Your task to perform on an android device: change the clock style Image 0: 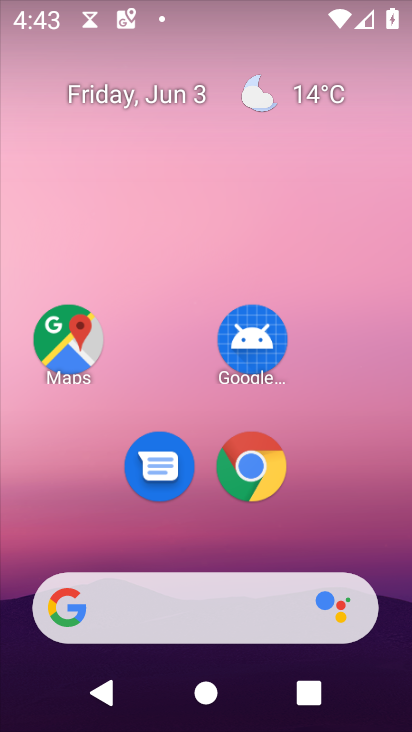
Step 0: drag from (331, 516) to (335, 161)
Your task to perform on an android device: change the clock style Image 1: 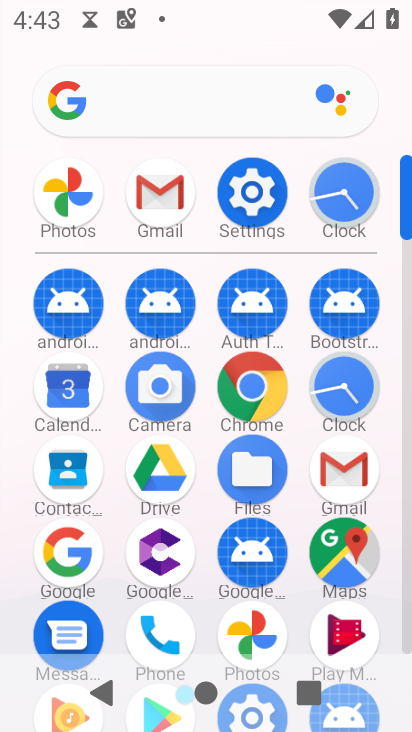
Step 1: click (345, 207)
Your task to perform on an android device: change the clock style Image 2: 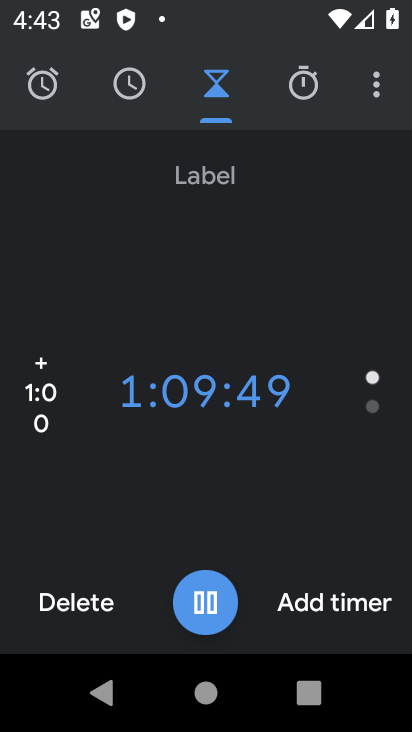
Step 2: click (375, 86)
Your task to perform on an android device: change the clock style Image 3: 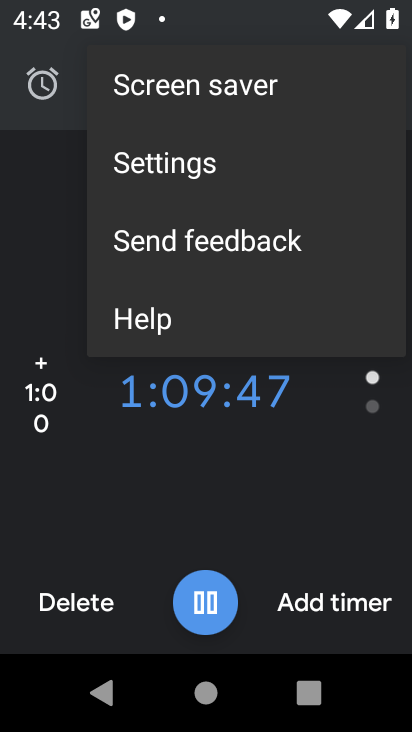
Step 3: click (264, 156)
Your task to perform on an android device: change the clock style Image 4: 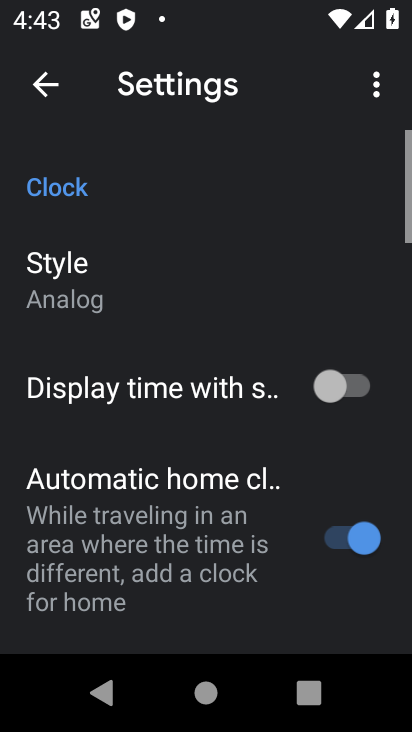
Step 4: click (98, 280)
Your task to perform on an android device: change the clock style Image 5: 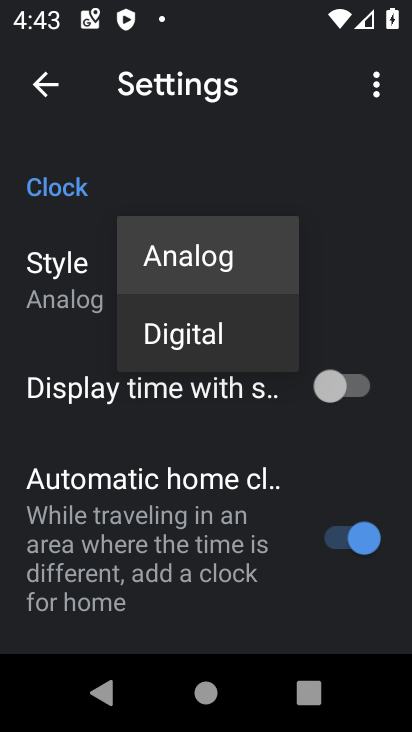
Step 5: click (92, 282)
Your task to perform on an android device: change the clock style Image 6: 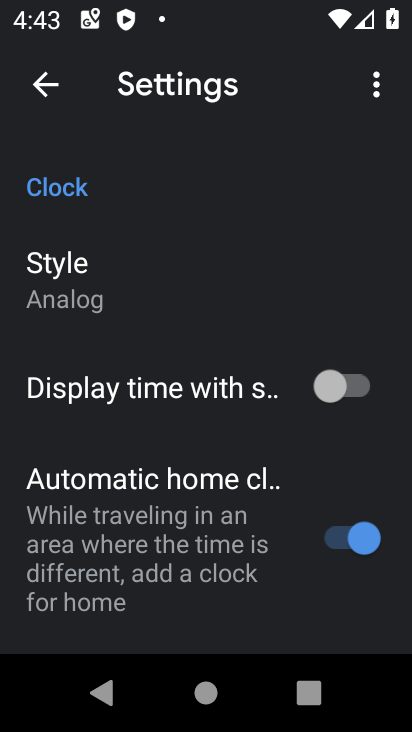
Step 6: click (139, 293)
Your task to perform on an android device: change the clock style Image 7: 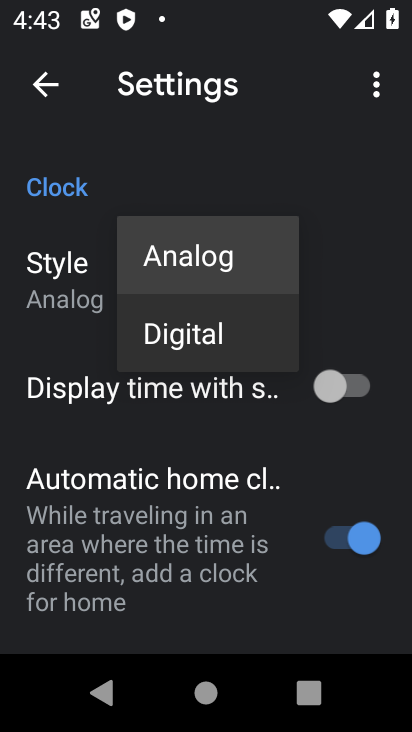
Step 7: click (168, 331)
Your task to perform on an android device: change the clock style Image 8: 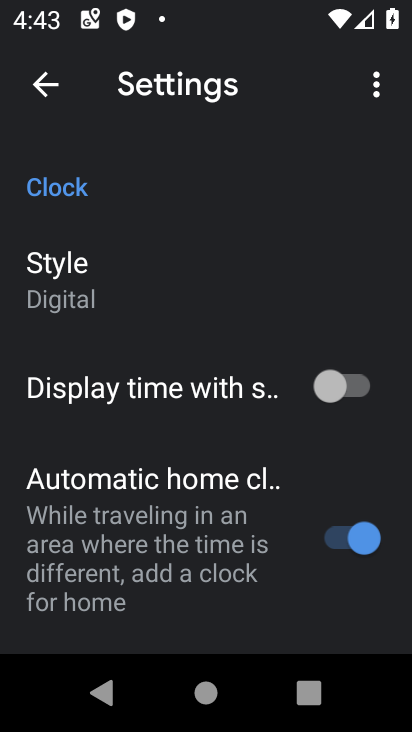
Step 8: task complete